Your task to perform on an android device: stop showing notifications on the lock screen Image 0: 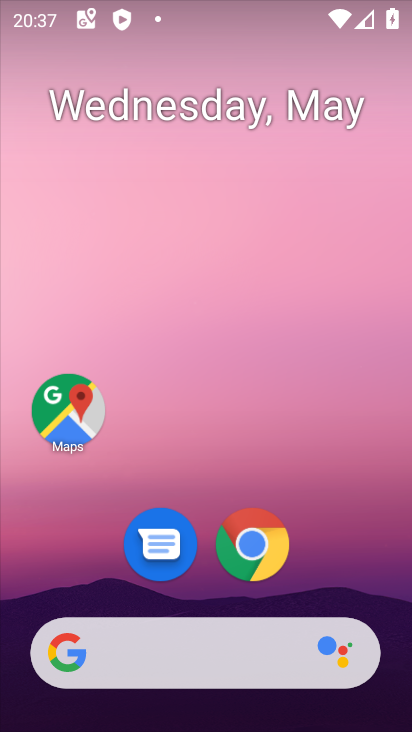
Step 0: drag from (220, 589) to (166, 147)
Your task to perform on an android device: stop showing notifications on the lock screen Image 1: 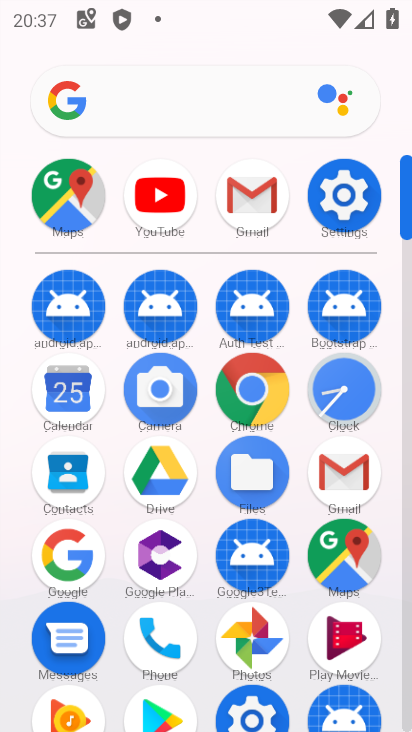
Step 1: click (329, 196)
Your task to perform on an android device: stop showing notifications on the lock screen Image 2: 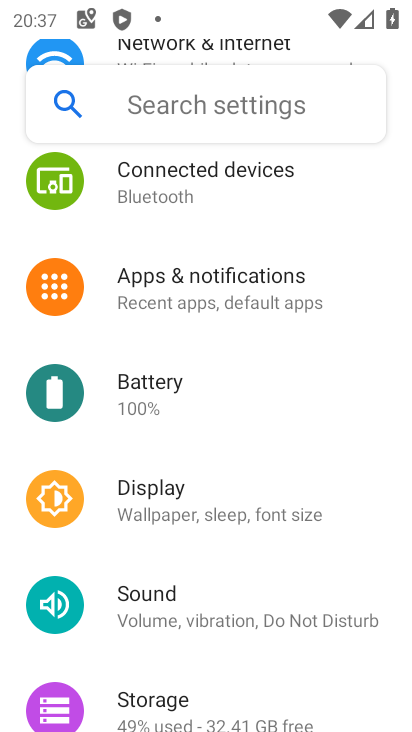
Step 2: click (241, 307)
Your task to perform on an android device: stop showing notifications on the lock screen Image 3: 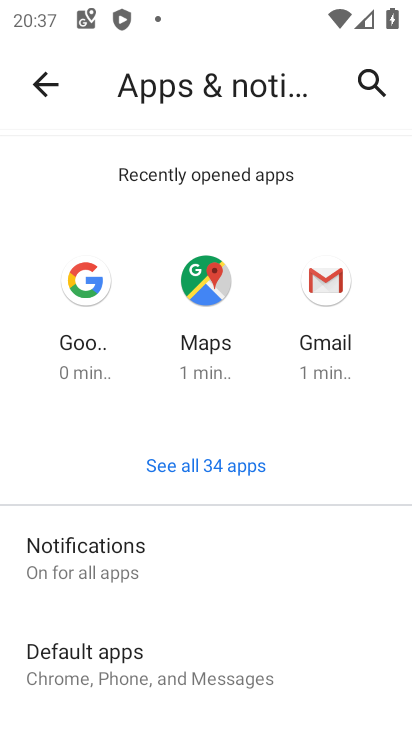
Step 3: click (125, 585)
Your task to perform on an android device: stop showing notifications on the lock screen Image 4: 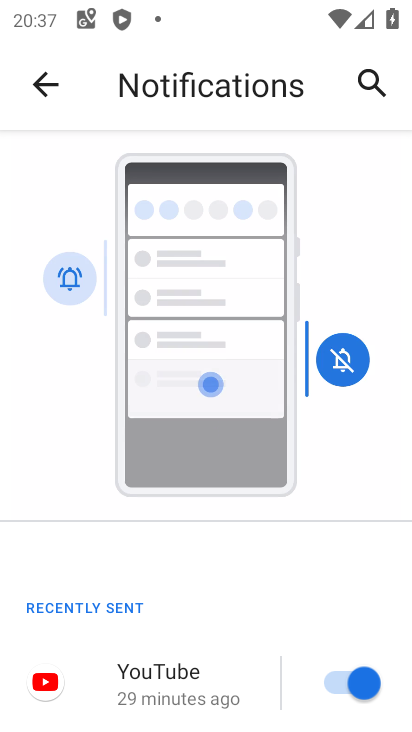
Step 4: drag from (125, 585) to (159, 168)
Your task to perform on an android device: stop showing notifications on the lock screen Image 5: 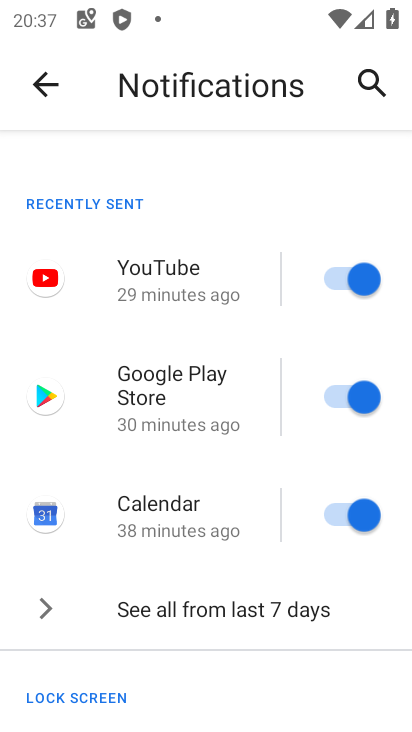
Step 5: drag from (147, 676) to (171, 193)
Your task to perform on an android device: stop showing notifications on the lock screen Image 6: 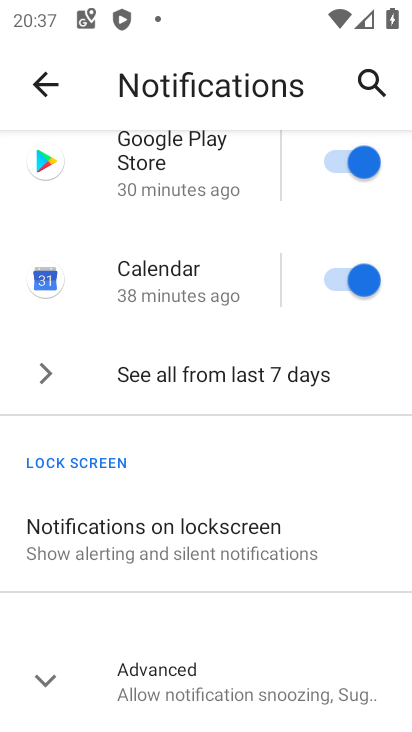
Step 6: click (254, 551)
Your task to perform on an android device: stop showing notifications on the lock screen Image 7: 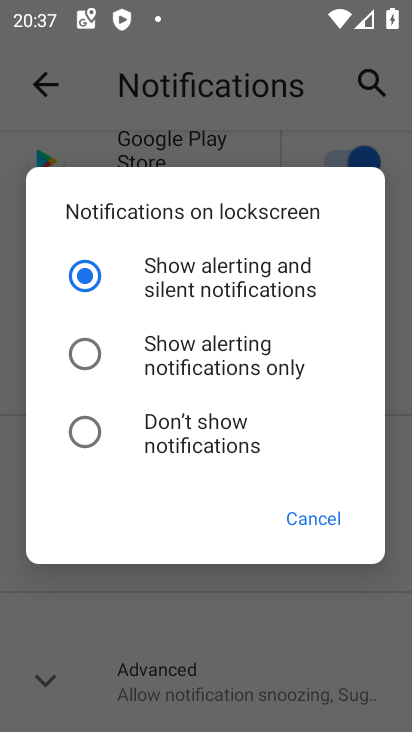
Step 7: click (191, 418)
Your task to perform on an android device: stop showing notifications on the lock screen Image 8: 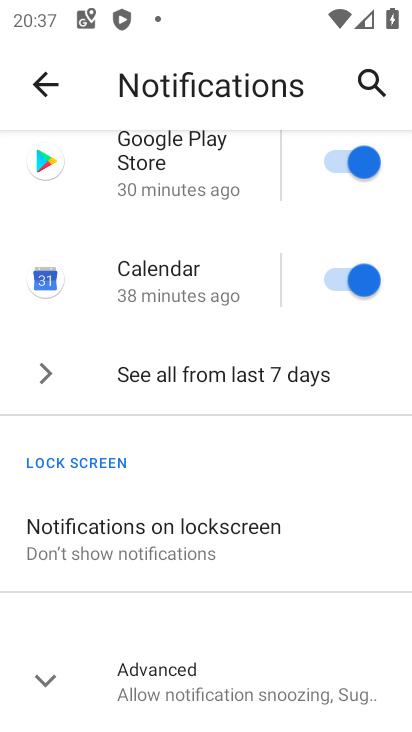
Step 8: task complete